Your task to perform on an android device: turn off airplane mode Image 0: 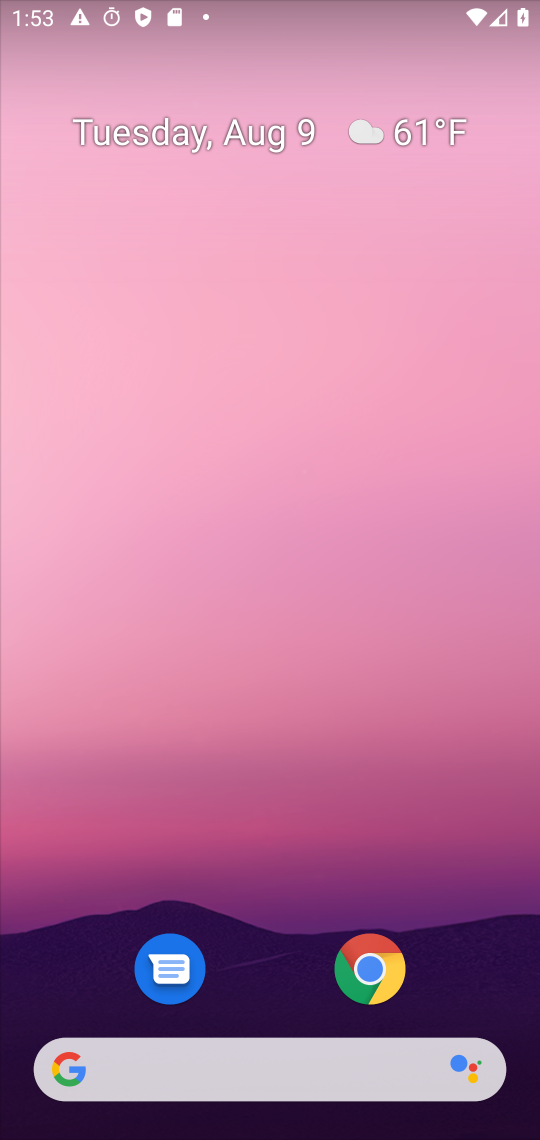
Step 0: drag from (415, 1118) to (228, 470)
Your task to perform on an android device: turn off airplane mode Image 1: 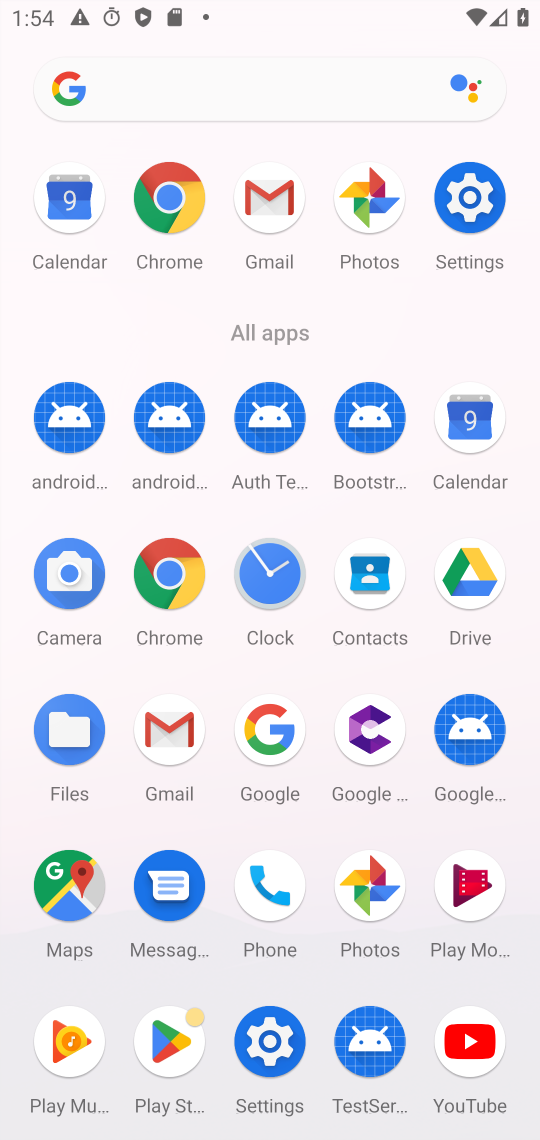
Step 1: click (469, 223)
Your task to perform on an android device: turn off airplane mode Image 2: 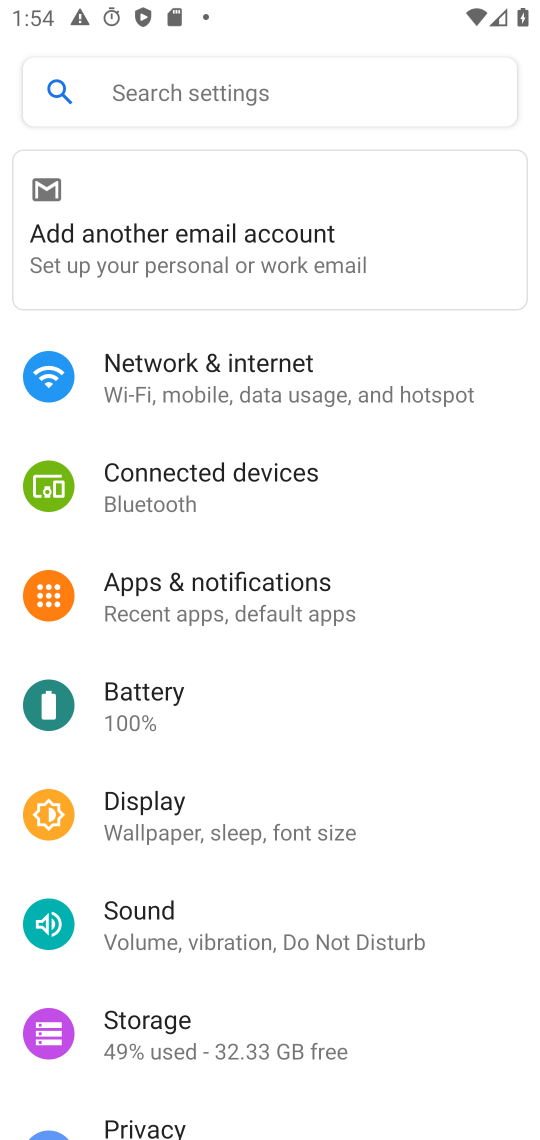
Step 2: click (246, 367)
Your task to perform on an android device: turn off airplane mode Image 3: 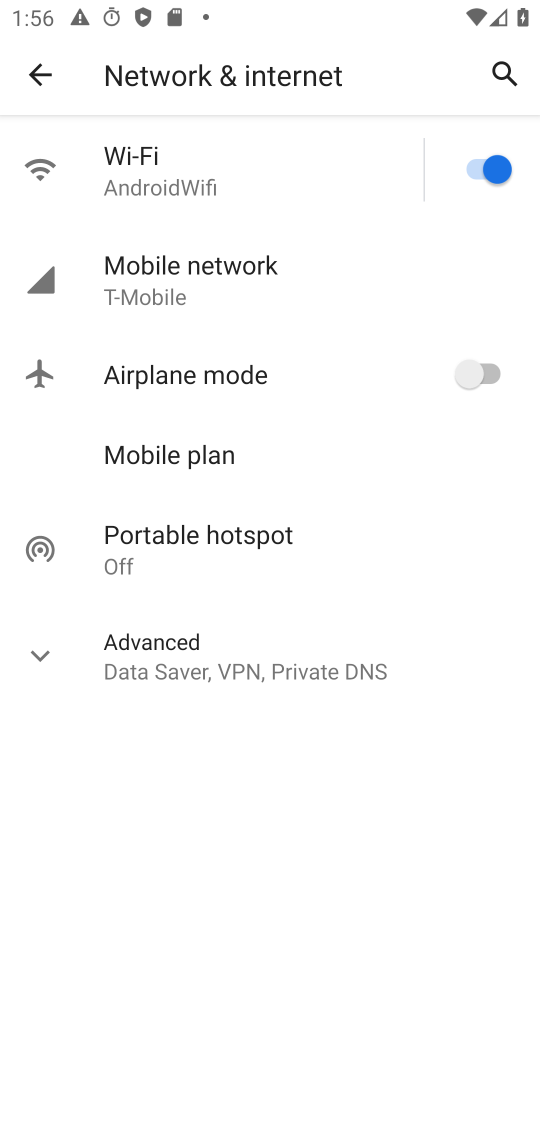
Step 3: task complete